Your task to perform on an android device: turn pop-ups off in chrome Image 0: 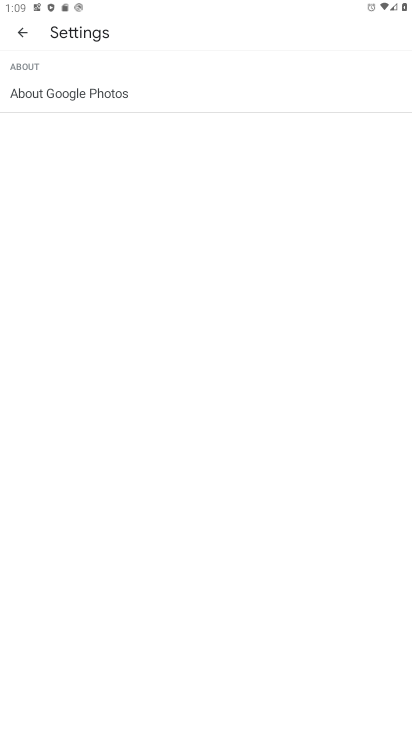
Step 0: press home button
Your task to perform on an android device: turn pop-ups off in chrome Image 1: 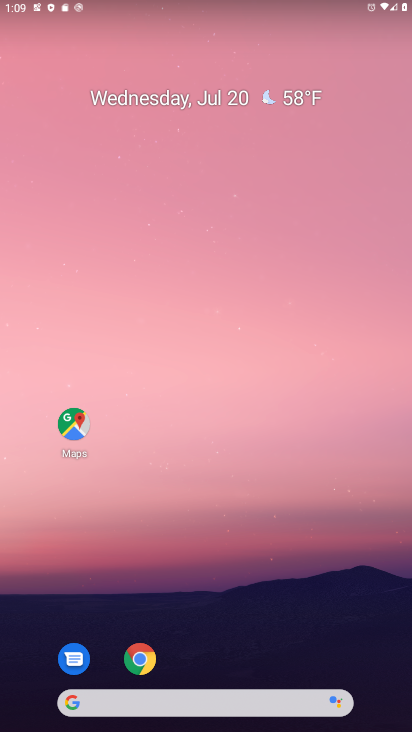
Step 1: click (137, 656)
Your task to perform on an android device: turn pop-ups off in chrome Image 2: 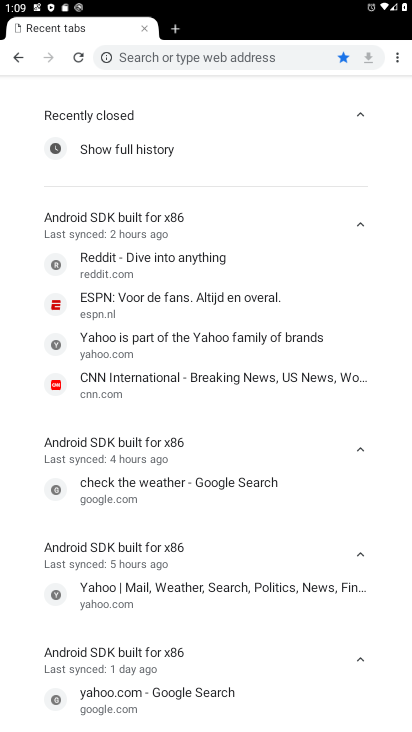
Step 2: click (398, 61)
Your task to perform on an android device: turn pop-ups off in chrome Image 3: 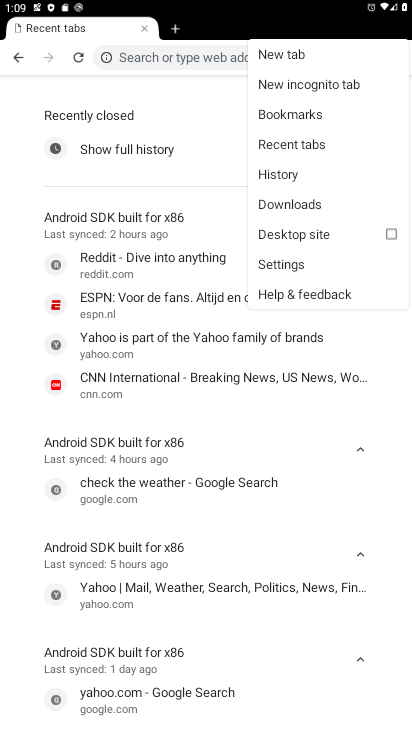
Step 3: click (307, 261)
Your task to perform on an android device: turn pop-ups off in chrome Image 4: 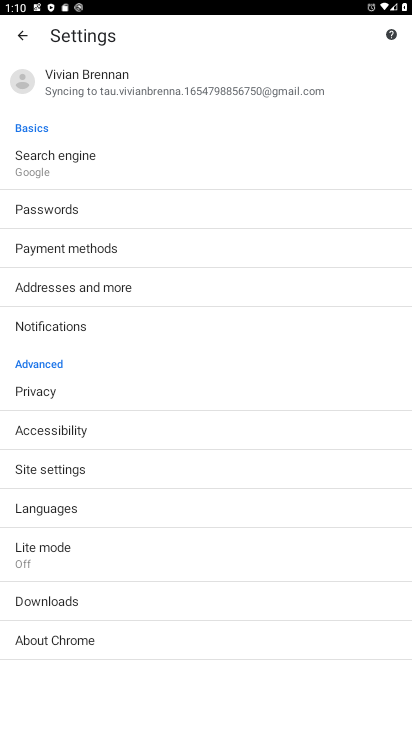
Step 4: click (87, 472)
Your task to perform on an android device: turn pop-ups off in chrome Image 5: 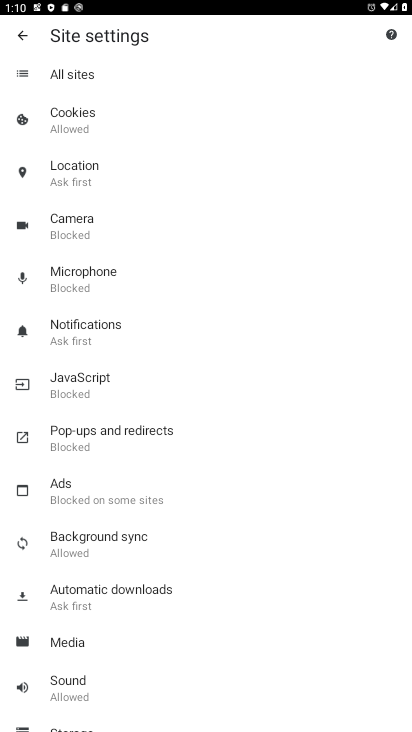
Step 5: click (110, 439)
Your task to perform on an android device: turn pop-ups off in chrome Image 6: 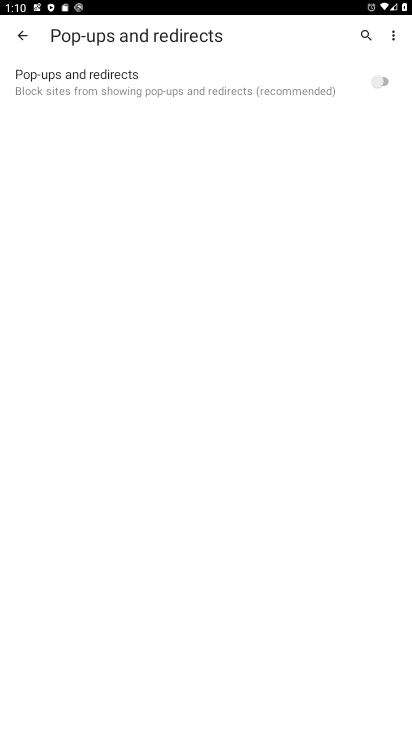
Step 6: task complete